Your task to perform on an android device: See recent photos Image 0: 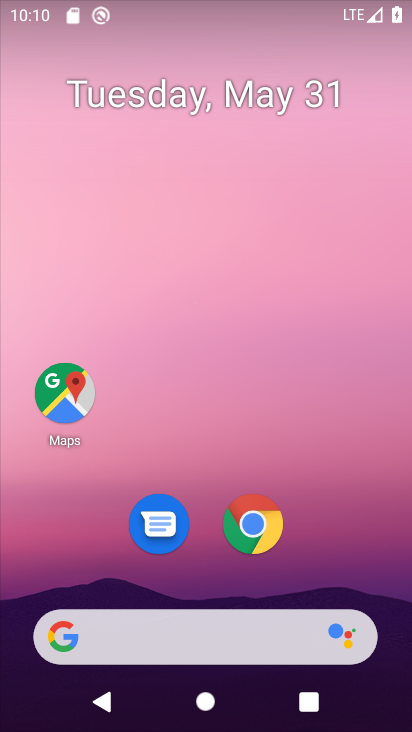
Step 0: drag from (333, 551) to (328, 38)
Your task to perform on an android device: See recent photos Image 1: 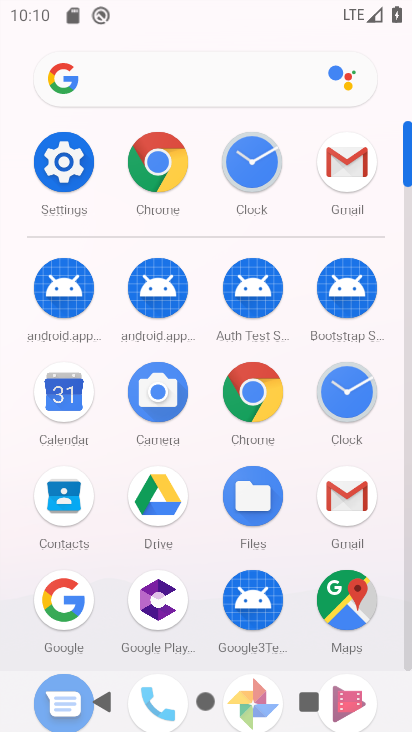
Step 1: drag from (274, 374) to (330, 155)
Your task to perform on an android device: See recent photos Image 2: 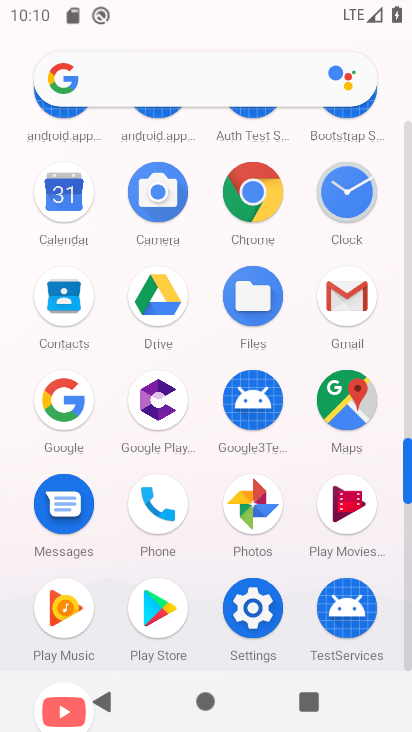
Step 2: click (247, 495)
Your task to perform on an android device: See recent photos Image 3: 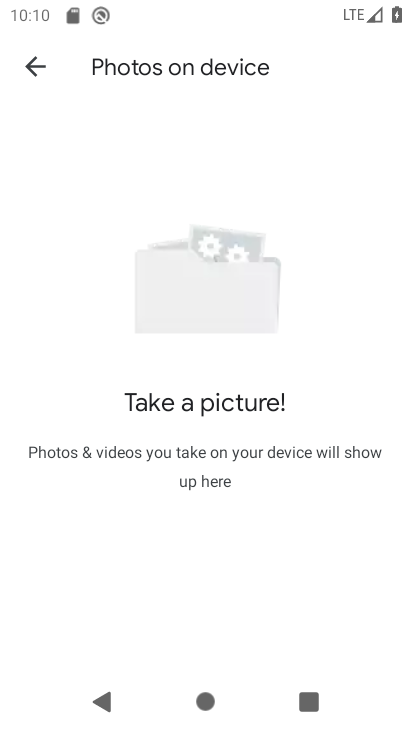
Step 3: click (30, 57)
Your task to perform on an android device: See recent photos Image 4: 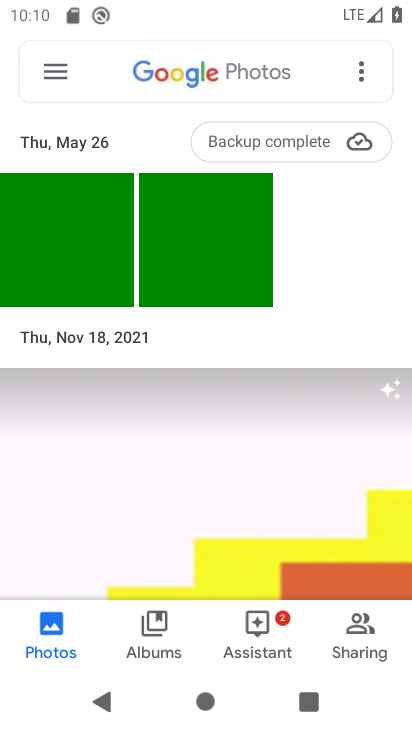
Step 4: click (41, 625)
Your task to perform on an android device: See recent photos Image 5: 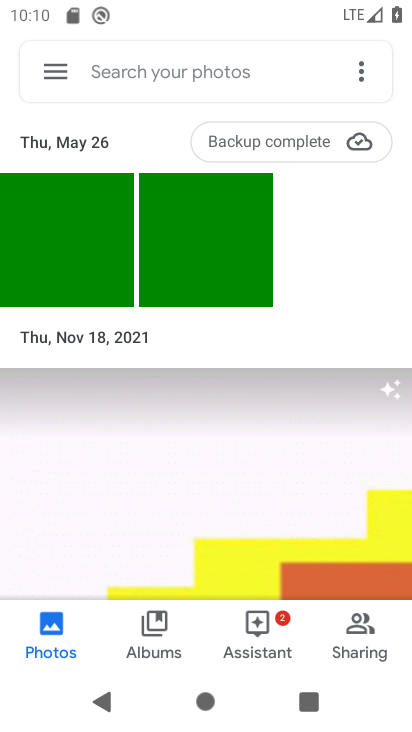
Step 5: task complete